Your task to perform on an android device: install app "Speedtest by Ookla" Image 0: 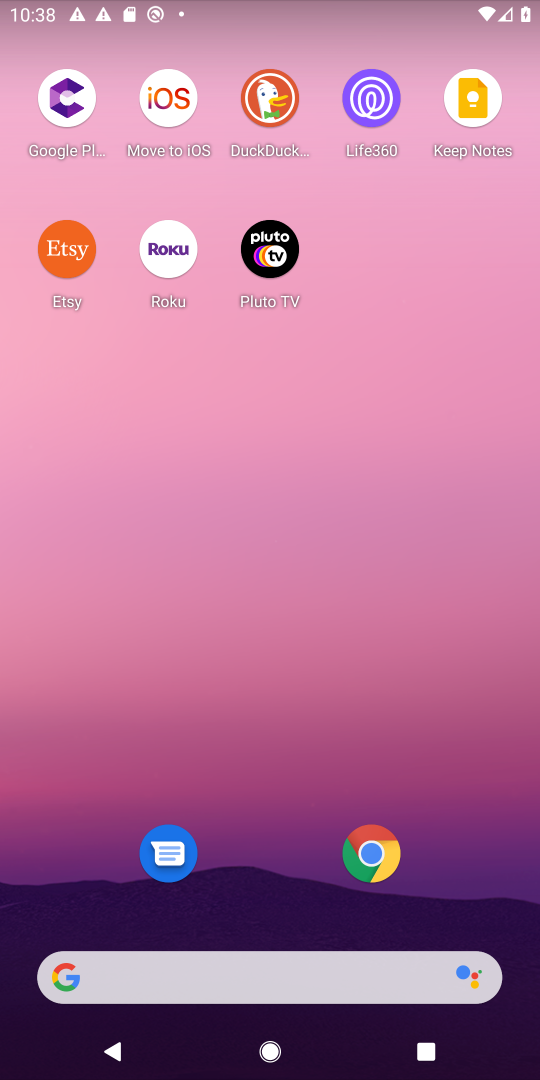
Step 0: drag from (302, 1048) to (287, 280)
Your task to perform on an android device: install app "Speedtest by Ookla" Image 1: 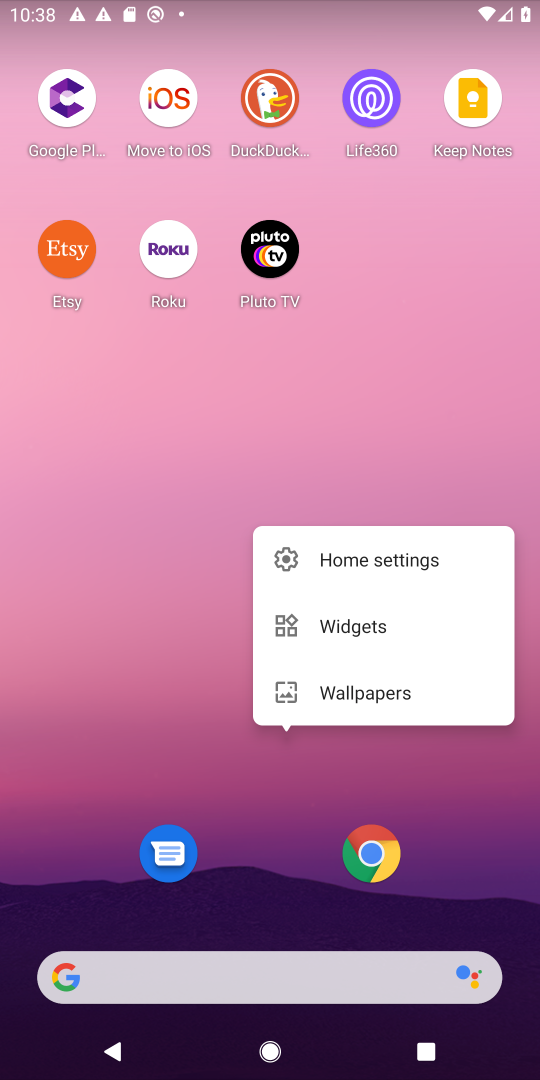
Step 1: click (356, 370)
Your task to perform on an android device: install app "Speedtest by Ookla" Image 2: 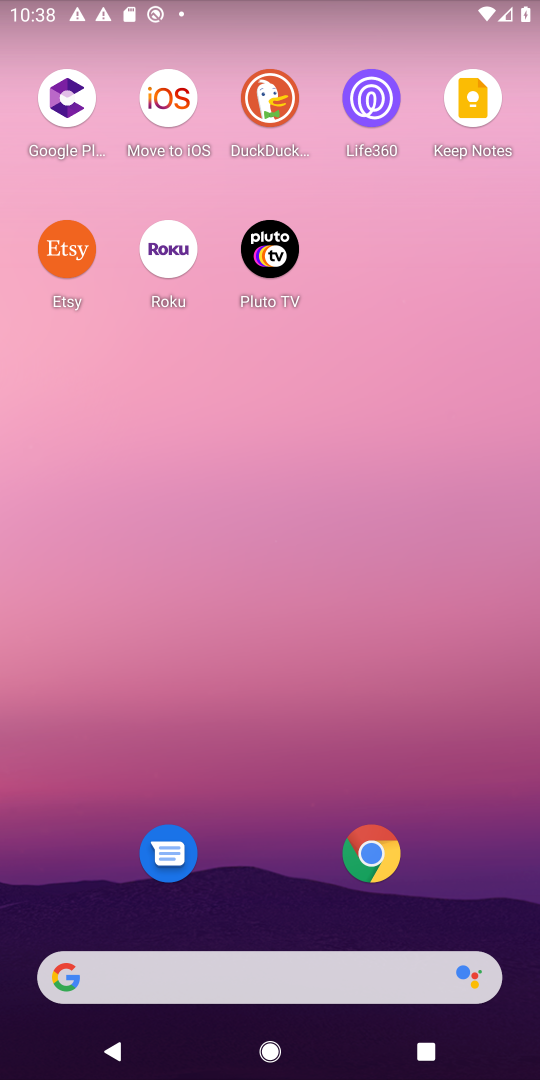
Step 2: press home button
Your task to perform on an android device: install app "Speedtest by Ookla" Image 3: 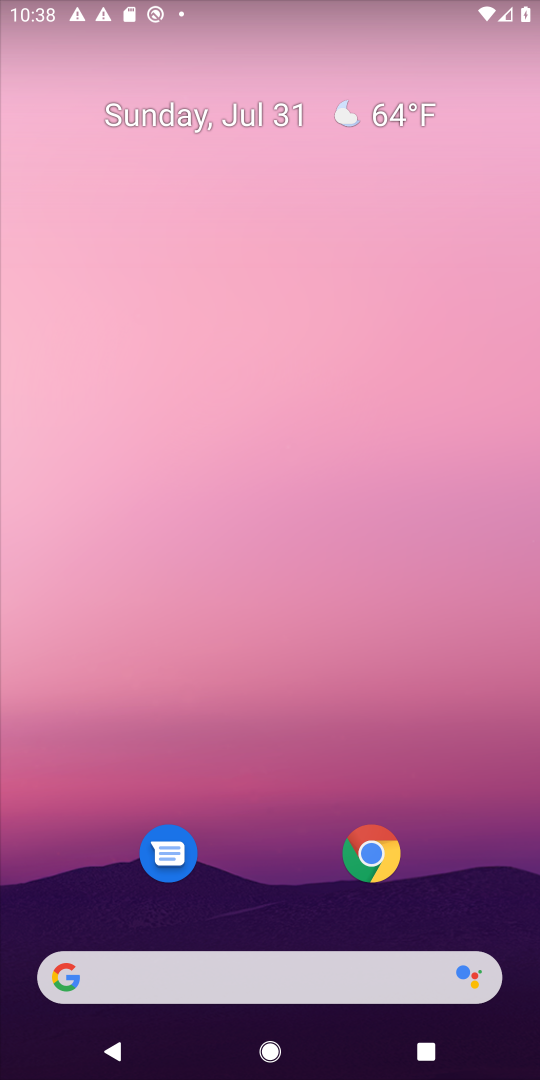
Step 3: drag from (303, 994) to (233, 162)
Your task to perform on an android device: install app "Speedtest by Ookla" Image 4: 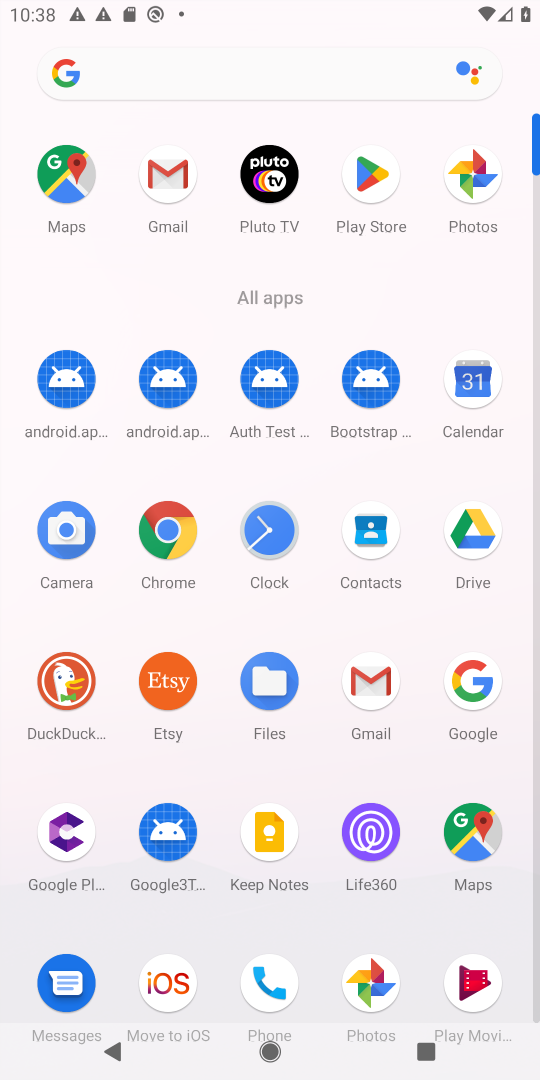
Step 4: click (376, 172)
Your task to perform on an android device: install app "Speedtest by Ookla" Image 5: 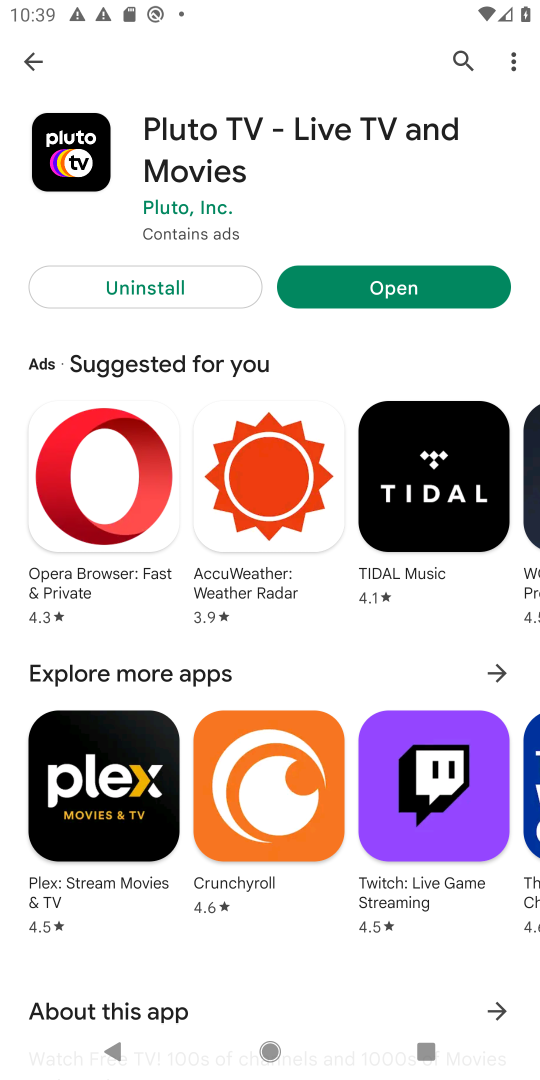
Step 5: click (465, 50)
Your task to perform on an android device: install app "Speedtest by Ookla" Image 6: 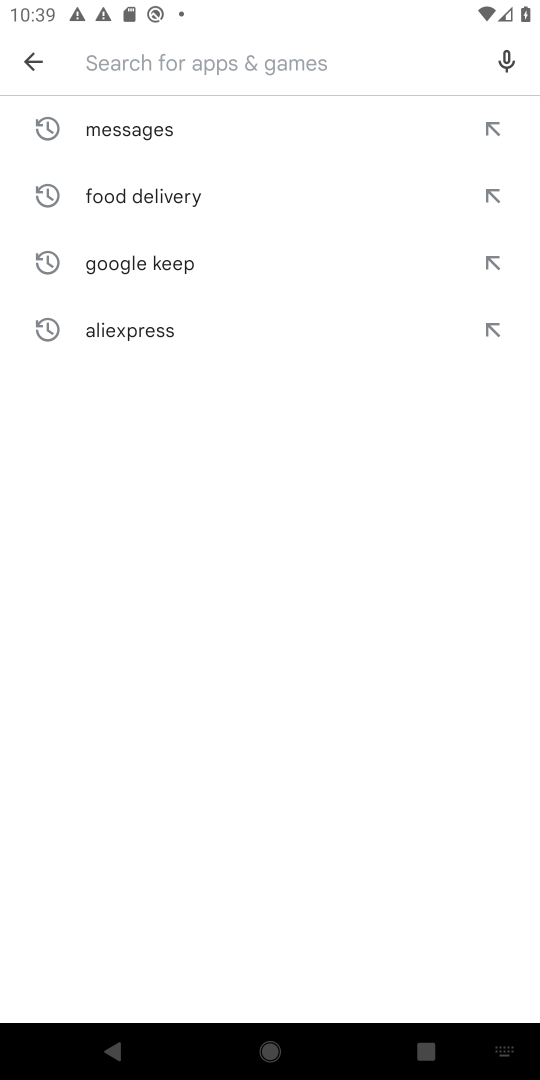
Step 6: type "Speedtest by Ookla"
Your task to perform on an android device: install app "Speedtest by Ookla" Image 7: 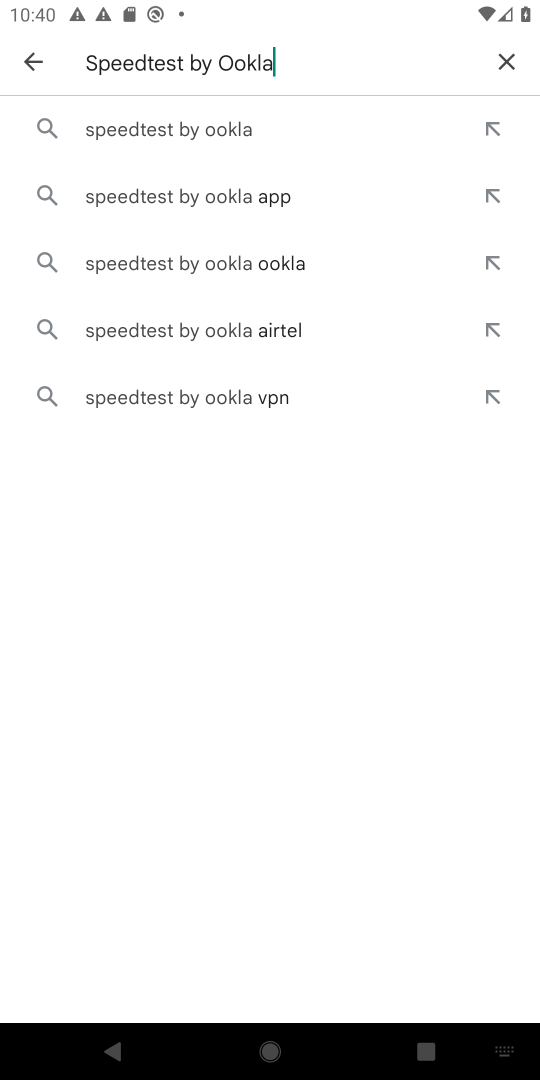
Step 7: click (121, 129)
Your task to perform on an android device: install app "Speedtest by Ookla" Image 8: 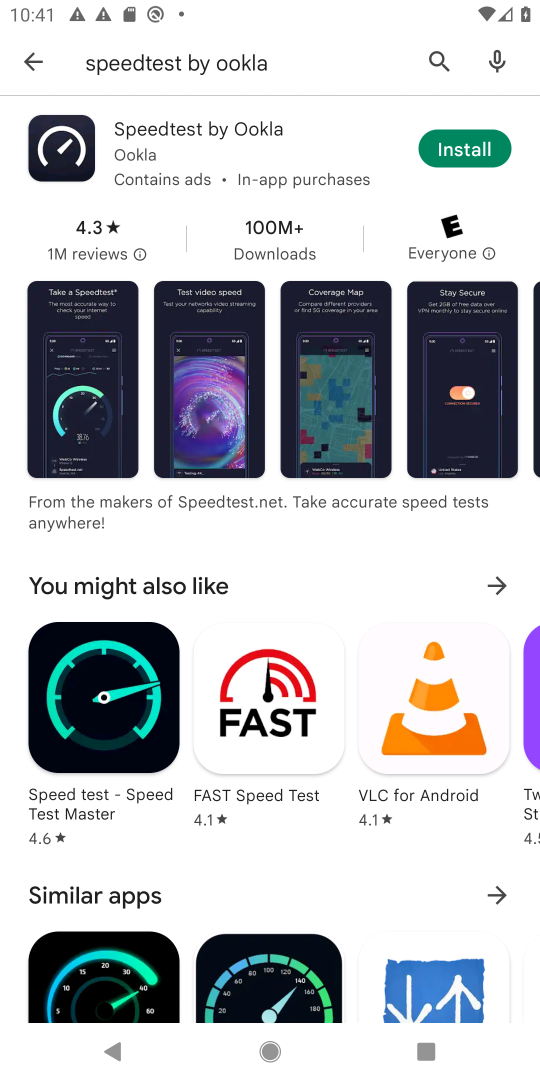
Step 8: click (482, 146)
Your task to perform on an android device: install app "Speedtest by Ookla" Image 9: 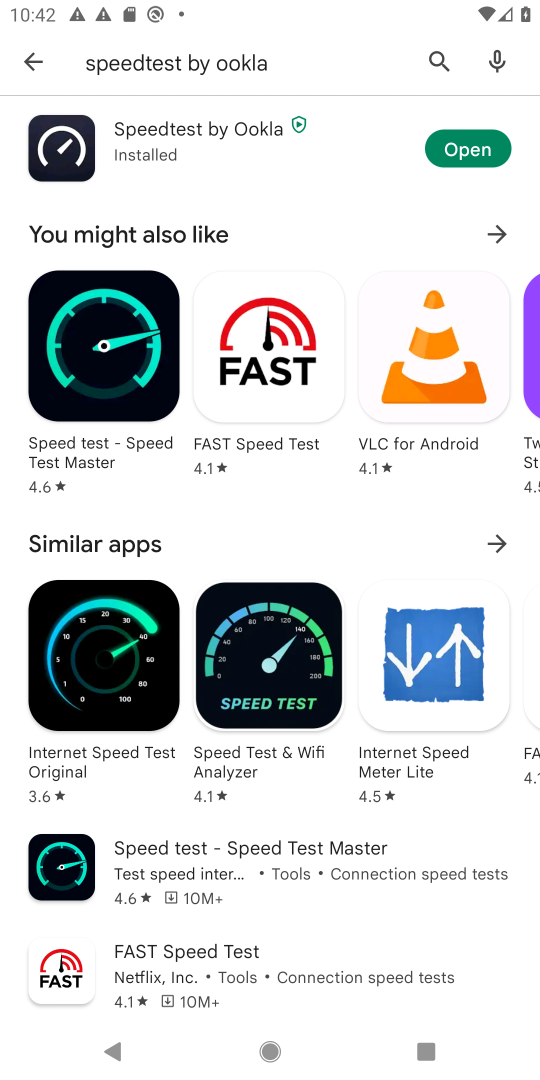
Step 9: task complete